Your task to perform on an android device: Check the weather Image 0: 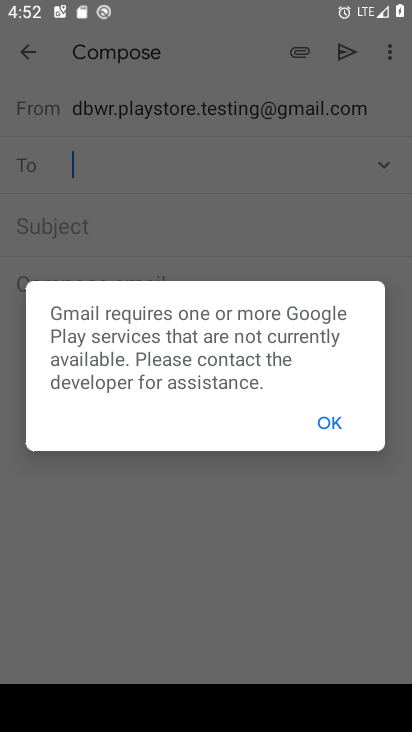
Step 0: press home button
Your task to perform on an android device: Check the weather Image 1: 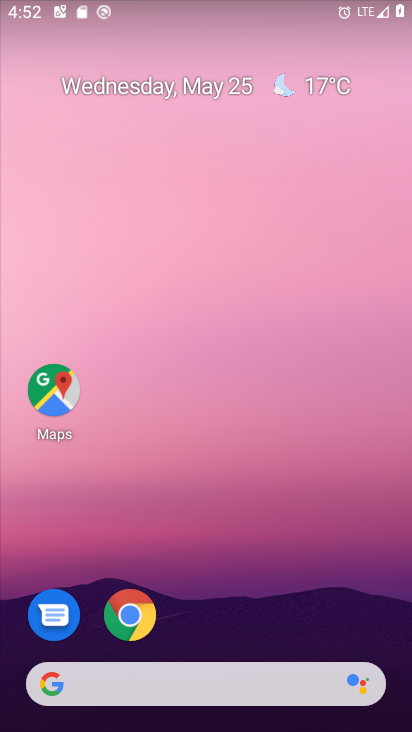
Step 1: click (329, 83)
Your task to perform on an android device: Check the weather Image 2: 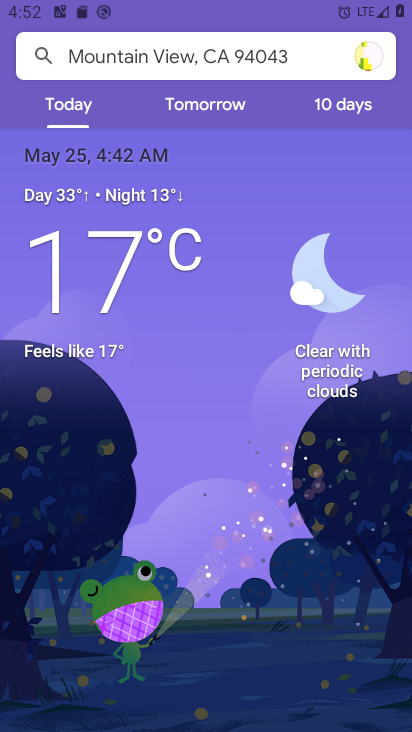
Step 2: task complete